Your task to perform on an android device: Open network settings Image 0: 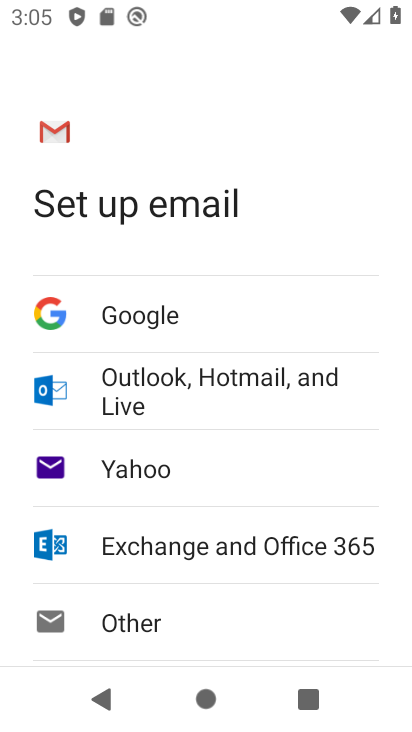
Step 0: press home button
Your task to perform on an android device: Open network settings Image 1: 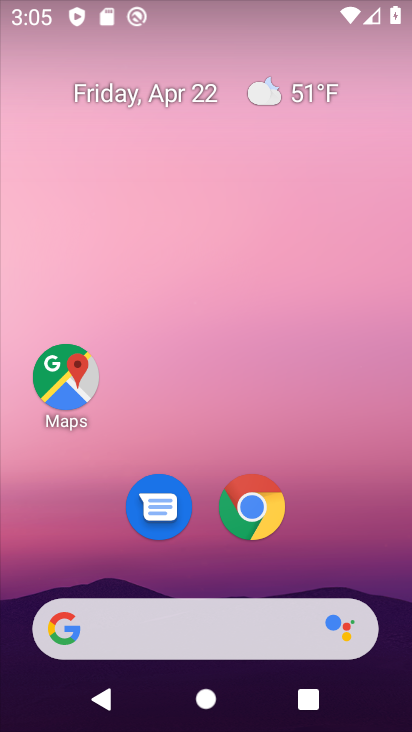
Step 1: drag from (209, 587) to (195, 0)
Your task to perform on an android device: Open network settings Image 2: 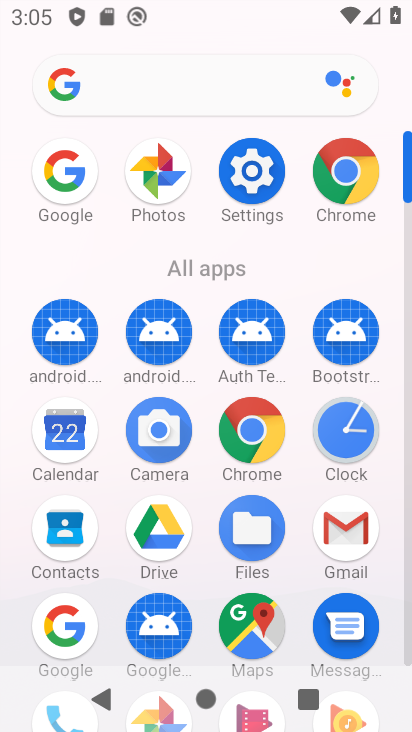
Step 2: click (267, 178)
Your task to perform on an android device: Open network settings Image 3: 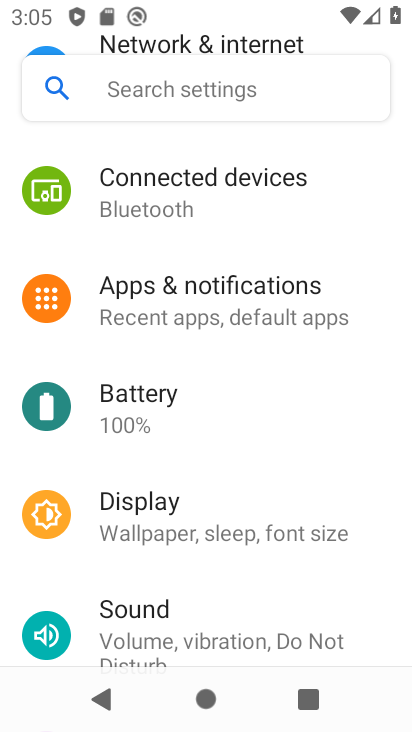
Step 3: drag from (211, 242) to (189, 638)
Your task to perform on an android device: Open network settings Image 4: 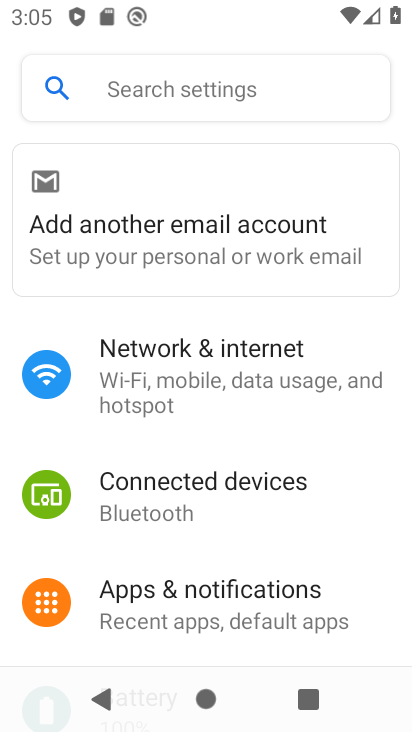
Step 4: click (209, 258)
Your task to perform on an android device: Open network settings Image 5: 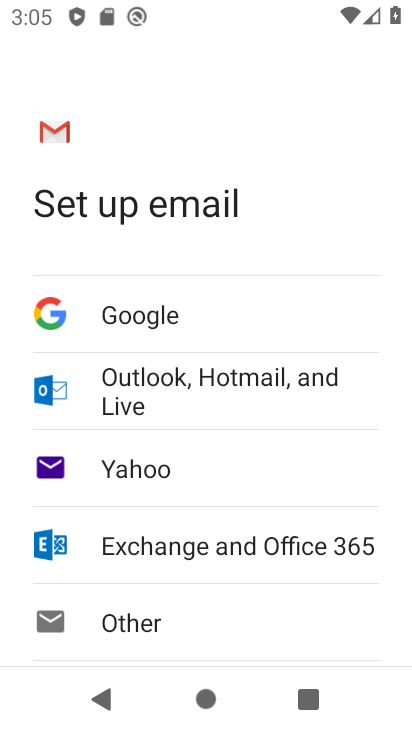
Step 5: click (98, 703)
Your task to perform on an android device: Open network settings Image 6: 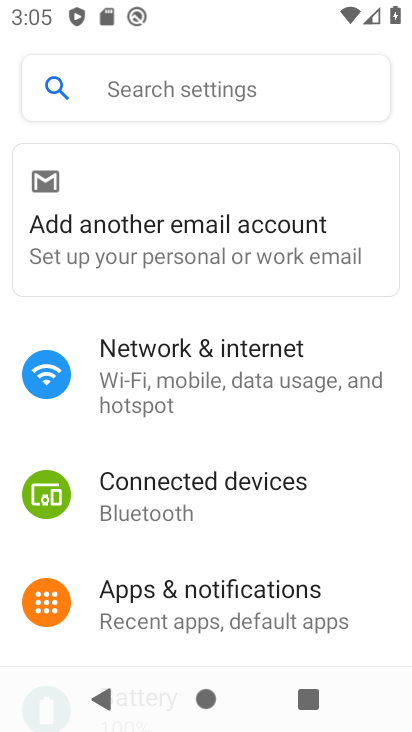
Step 6: click (155, 380)
Your task to perform on an android device: Open network settings Image 7: 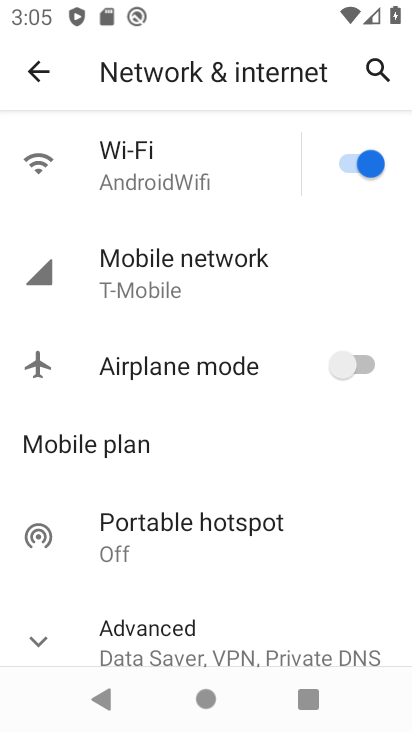
Step 7: drag from (153, 517) to (114, 122)
Your task to perform on an android device: Open network settings Image 8: 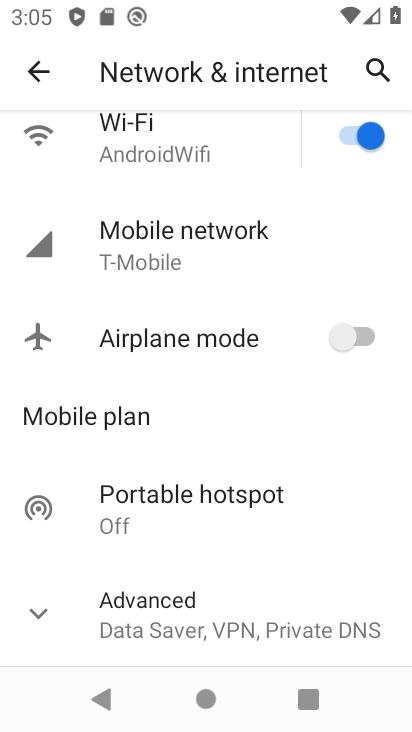
Step 8: click (165, 618)
Your task to perform on an android device: Open network settings Image 9: 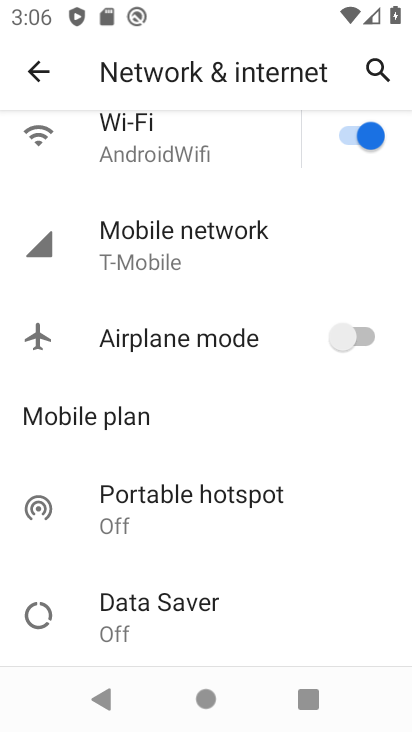
Step 9: task complete